Your task to perform on an android device: Search for "dell alienware" on amazon.com, select the first entry, and add it to the cart. Image 0: 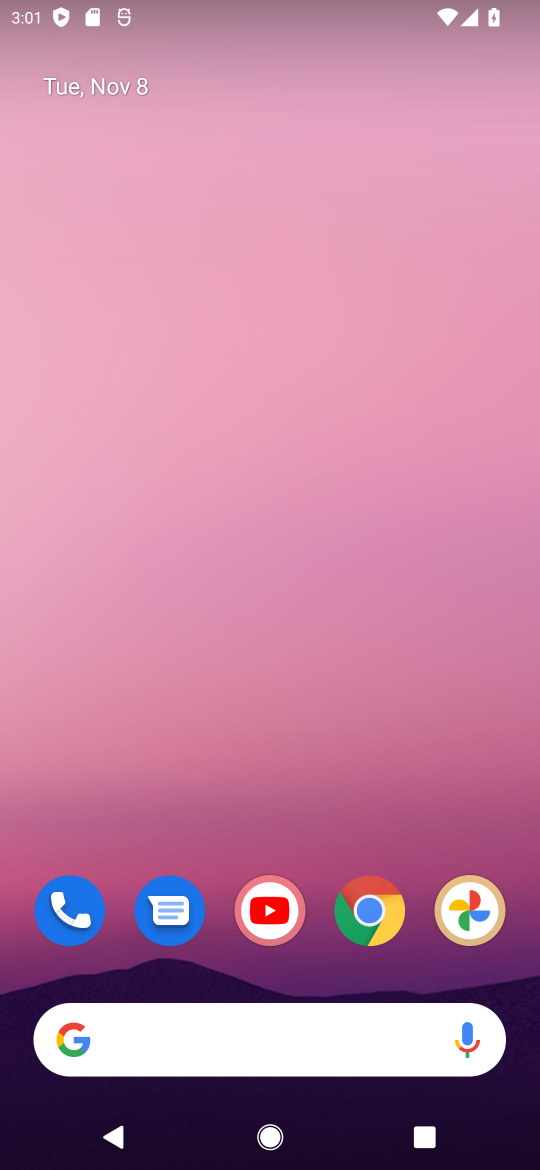
Step 0: drag from (211, 935) to (222, 70)
Your task to perform on an android device: Search for "dell alienware" on amazon.com, select the first entry, and add it to the cart. Image 1: 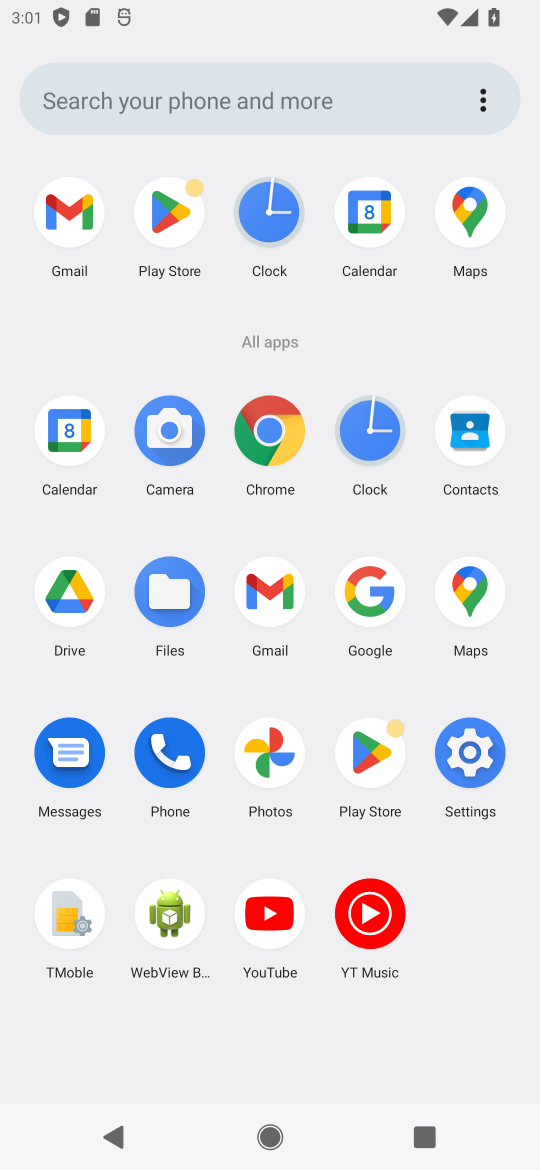
Step 1: click (274, 431)
Your task to perform on an android device: Search for "dell alienware" on amazon.com, select the first entry, and add it to the cart. Image 2: 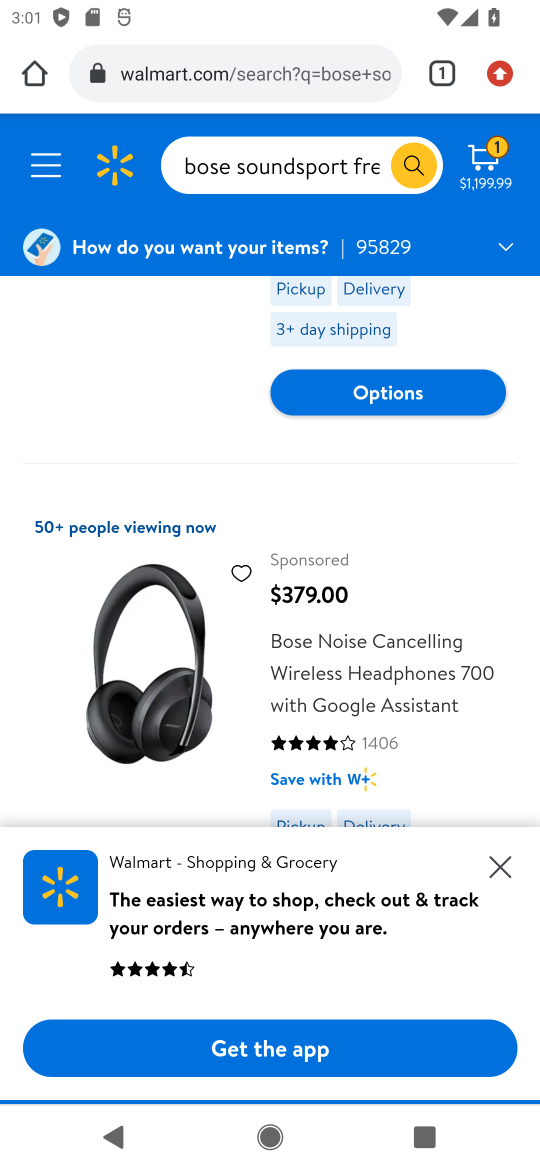
Step 2: click (268, 63)
Your task to perform on an android device: Search for "dell alienware" on amazon.com, select the first entry, and add it to the cart. Image 3: 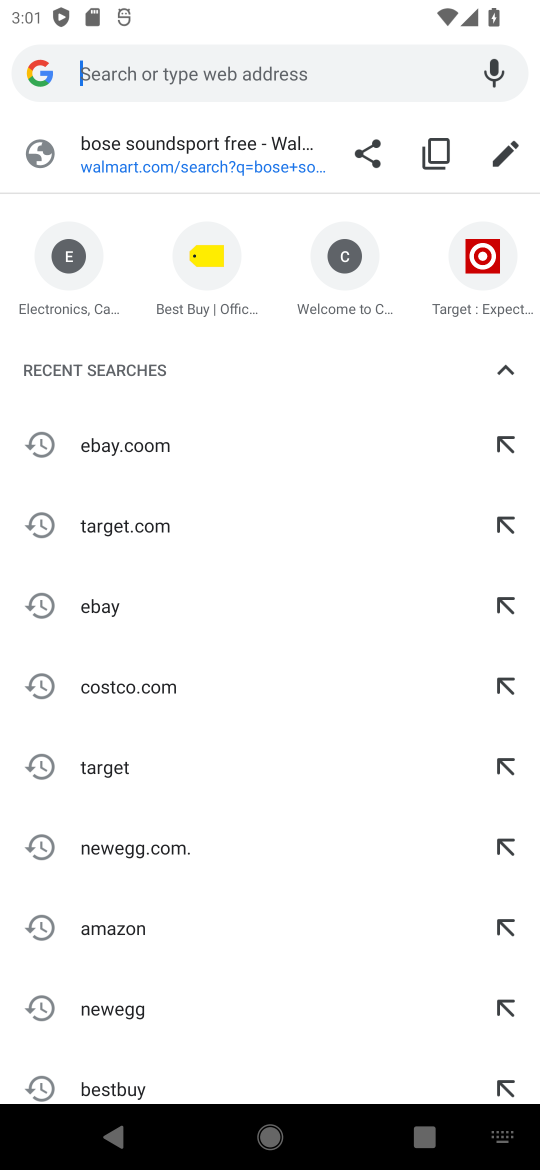
Step 3: type "amazon.com"
Your task to perform on an android device: Search for "dell alienware" on amazon.com, select the first entry, and add it to the cart. Image 4: 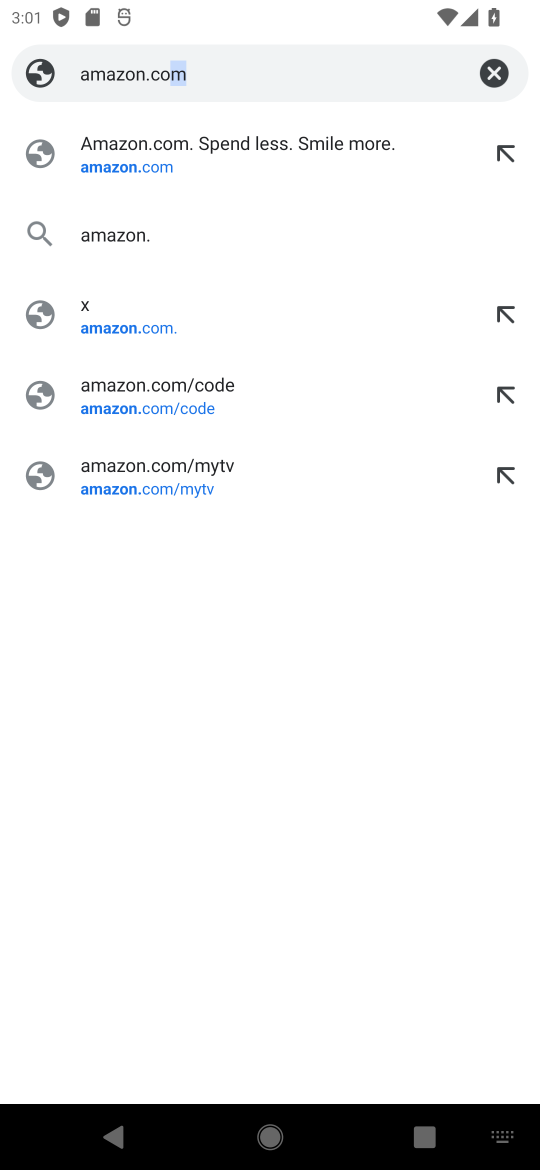
Step 4: press enter
Your task to perform on an android device: Search for "dell alienware" on amazon.com, select the first entry, and add it to the cart. Image 5: 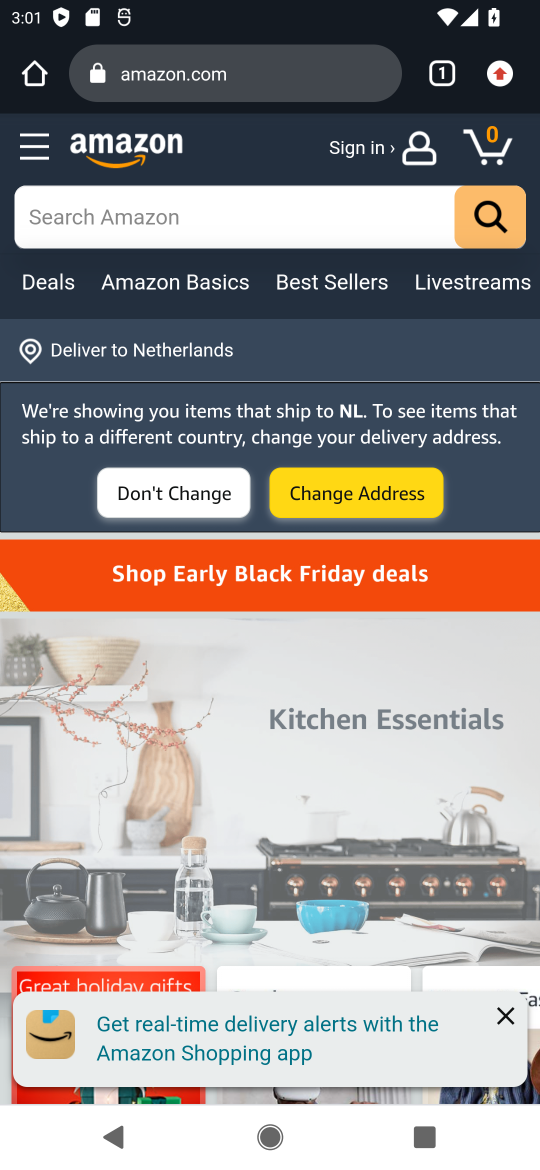
Step 5: click (237, 211)
Your task to perform on an android device: Search for "dell alienware" on amazon.com, select the first entry, and add it to the cart. Image 6: 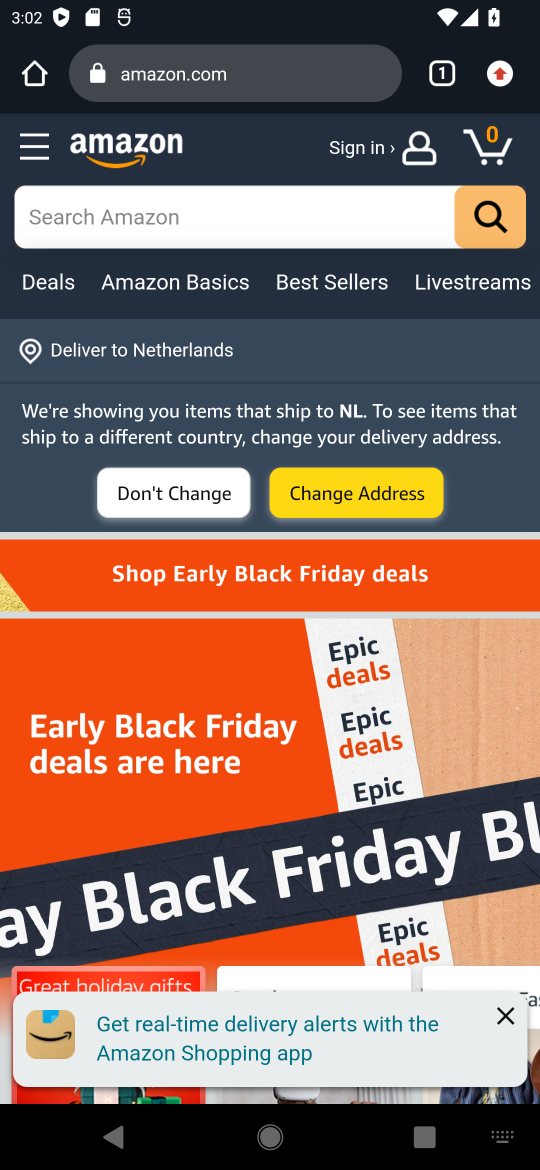
Step 6: type "dell alienware"
Your task to perform on an android device: Search for "dell alienware" on amazon.com, select the first entry, and add it to the cart. Image 7: 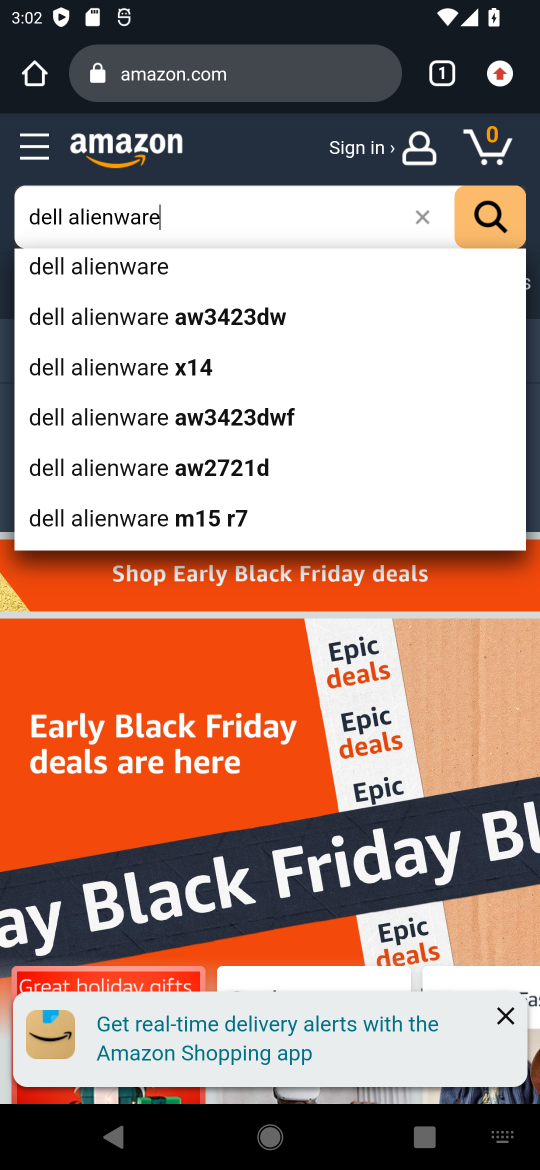
Step 7: press enter
Your task to perform on an android device: Search for "dell alienware" on amazon.com, select the first entry, and add it to the cart. Image 8: 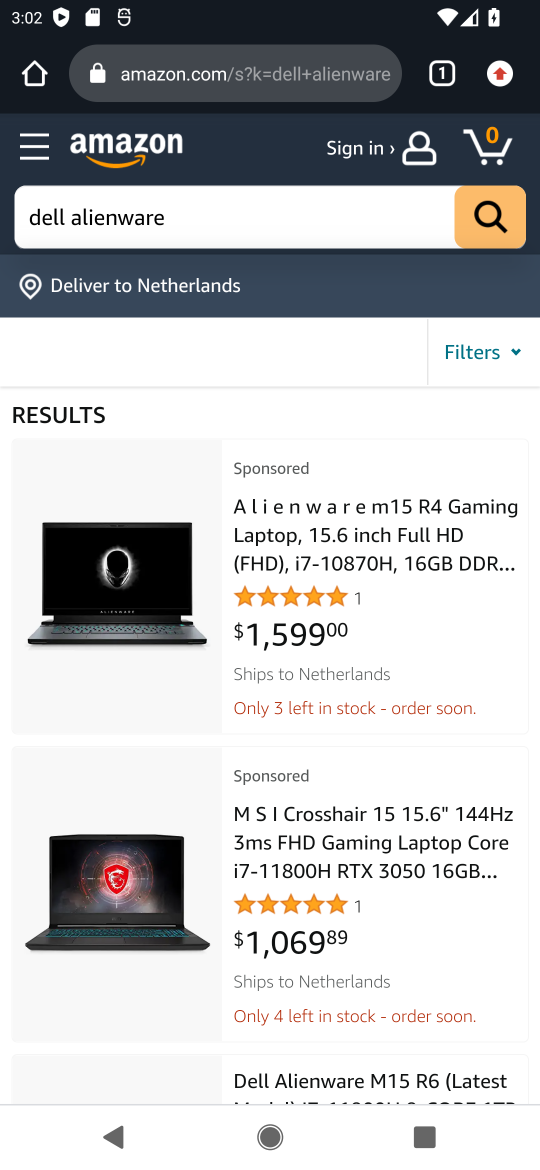
Step 8: drag from (369, 980) to (366, 226)
Your task to perform on an android device: Search for "dell alienware" on amazon.com, select the first entry, and add it to the cart. Image 9: 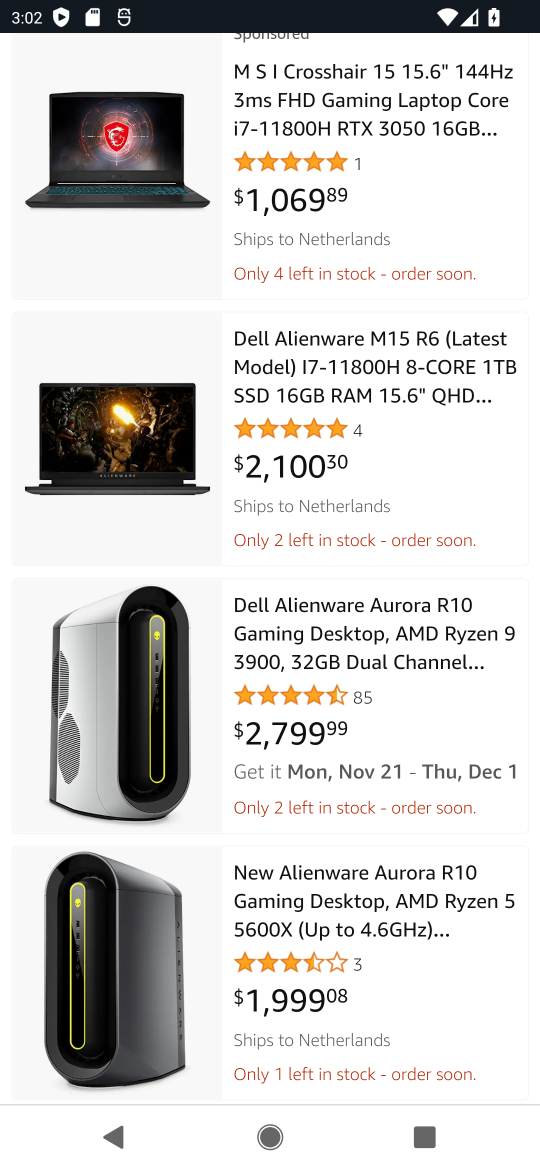
Step 9: click (318, 394)
Your task to perform on an android device: Search for "dell alienware" on amazon.com, select the first entry, and add it to the cart. Image 10: 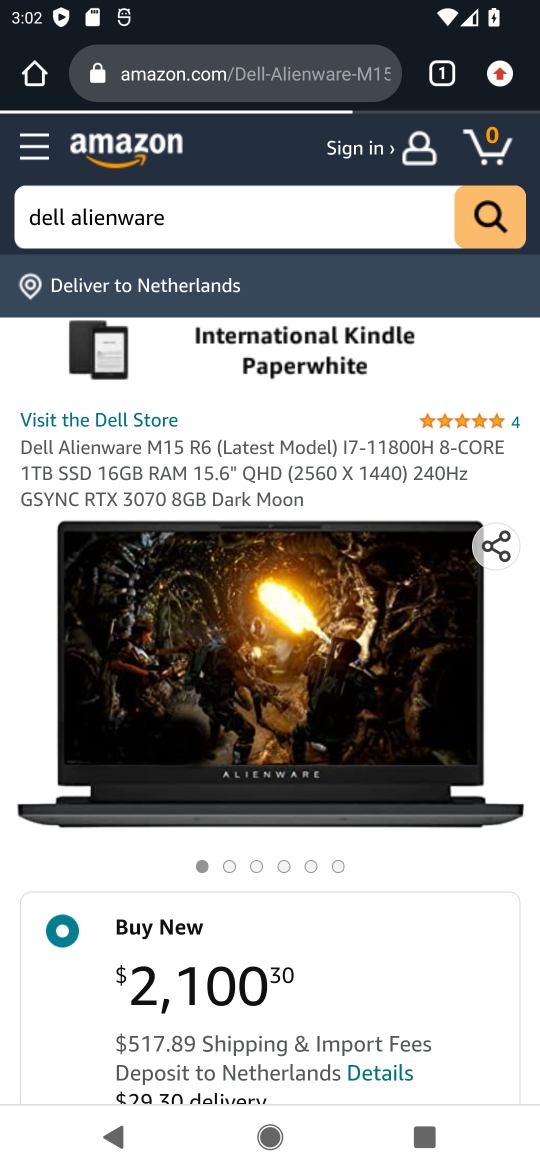
Step 10: drag from (317, 942) to (395, 268)
Your task to perform on an android device: Search for "dell alienware" on amazon.com, select the first entry, and add it to the cart. Image 11: 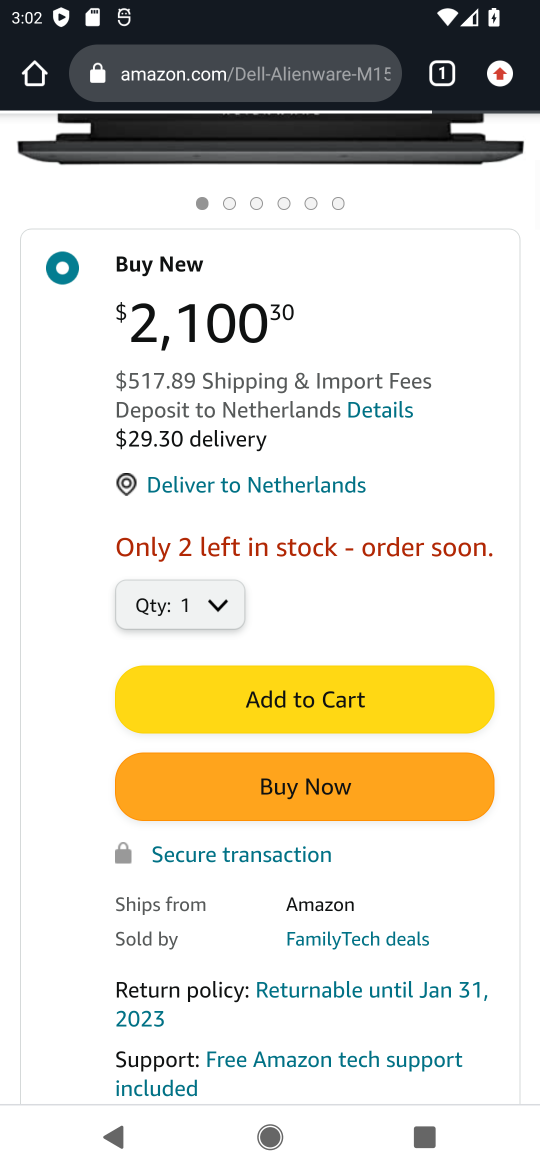
Step 11: click (345, 703)
Your task to perform on an android device: Search for "dell alienware" on amazon.com, select the first entry, and add it to the cart. Image 12: 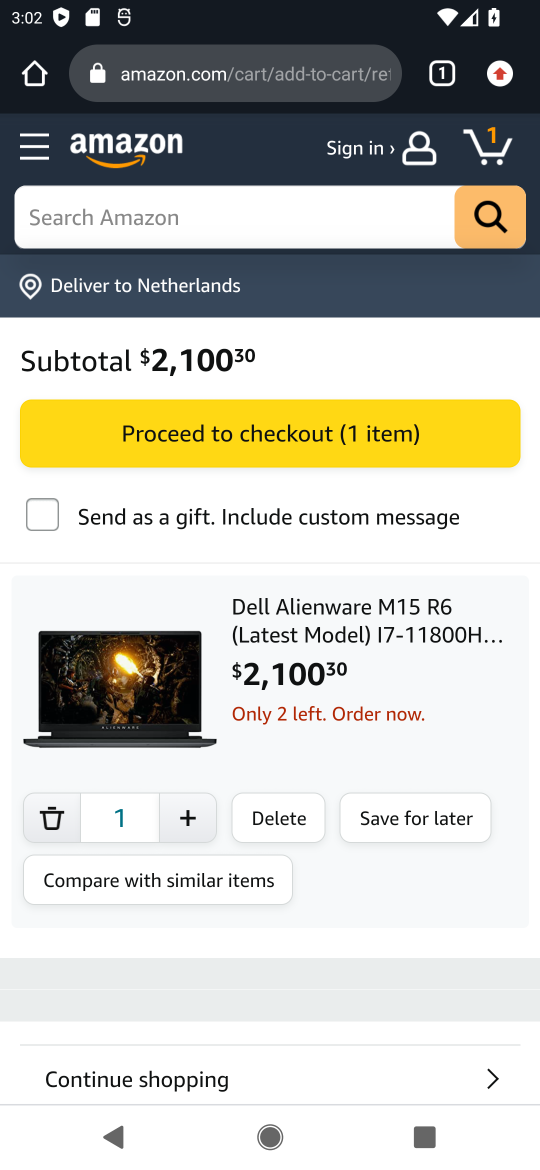
Step 12: task complete